Your task to perform on an android device: turn off location history Image 0: 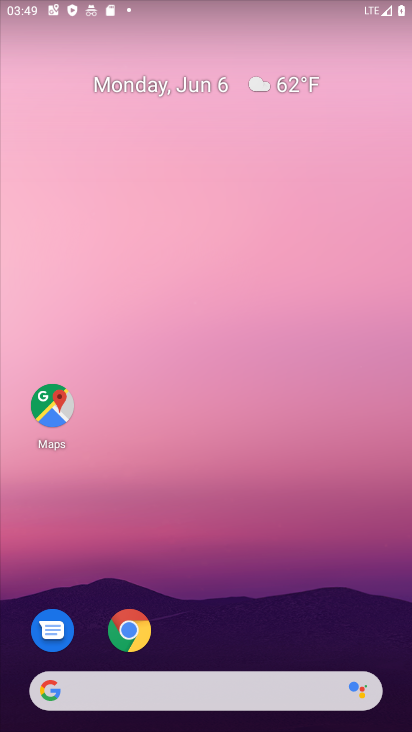
Step 0: drag from (257, 653) to (263, 609)
Your task to perform on an android device: turn off location history Image 1: 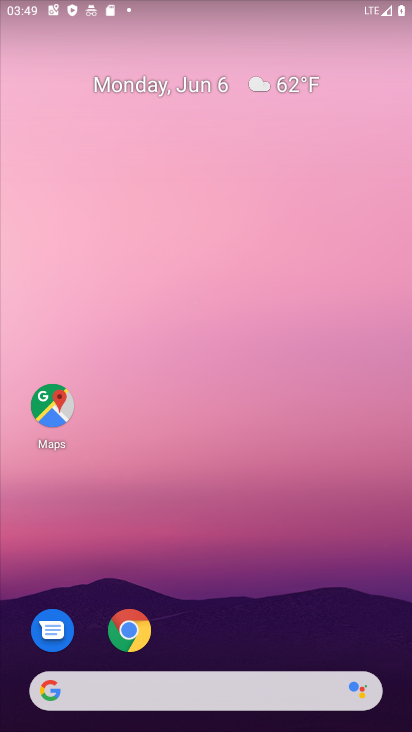
Step 1: click (34, 395)
Your task to perform on an android device: turn off location history Image 2: 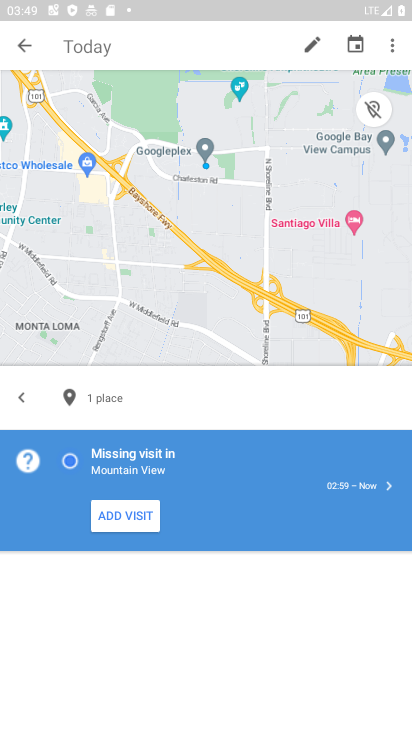
Step 2: click (28, 49)
Your task to perform on an android device: turn off location history Image 3: 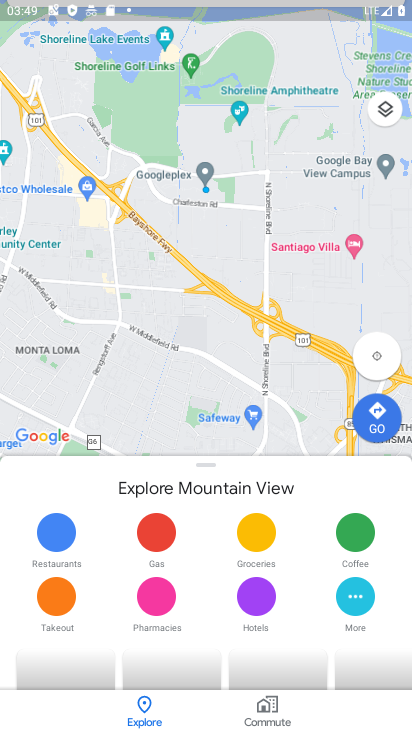
Step 3: click (28, 49)
Your task to perform on an android device: turn off location history Image 4: 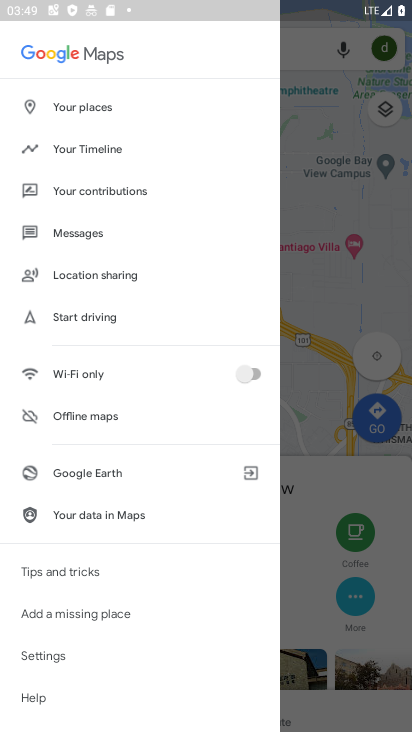
Step 4: click (63, 155)
Your task to perform on an android device: turn off location history Image 5: 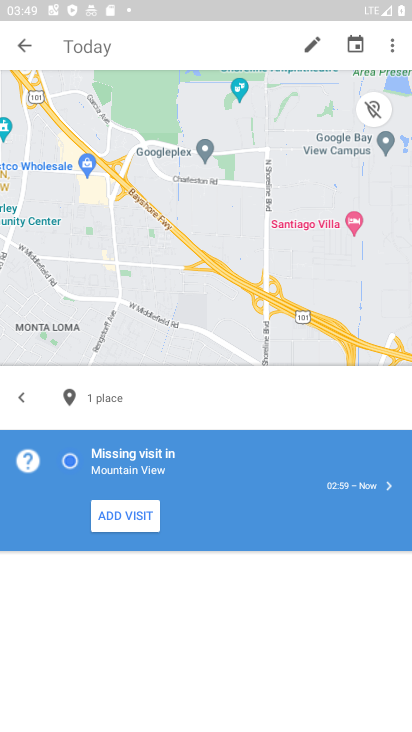
Step 5: click (385, 43)
Your task to perform on an android device: turn off location history Image 6: 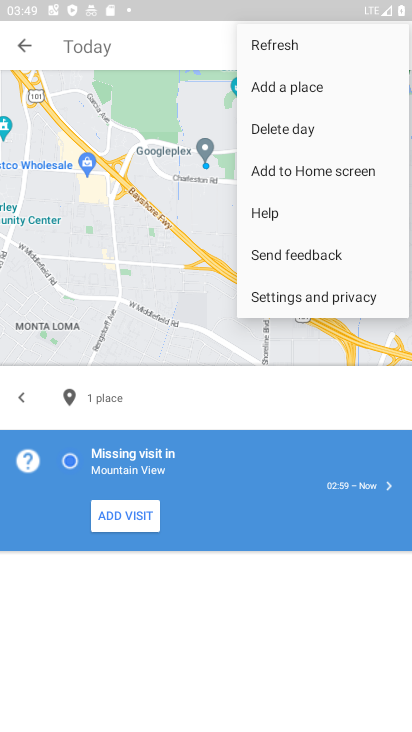
Step 6: click (297, 296)
Your task to perform on an android device: turn off location history Image 7: 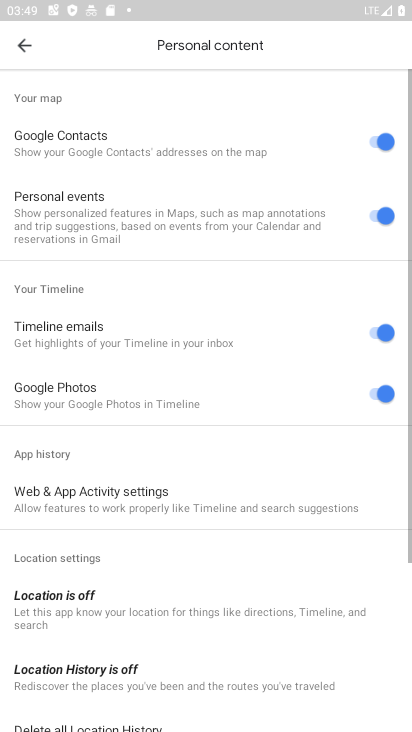
Step 7: click (95, 654)
Your task to perform on an android device: turn off location history Image 8: 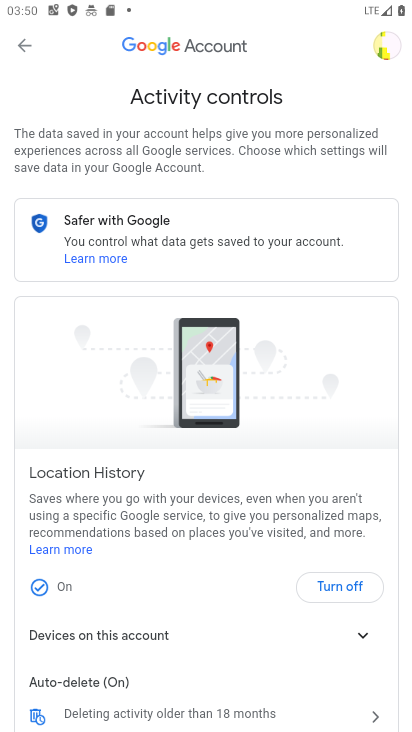
Step 8: task complete